Your task to perform on an android device: Set the phone to "Do not disturb". Image 0: 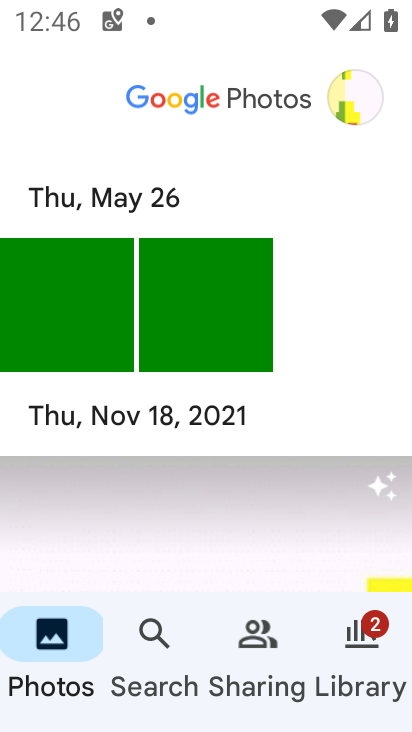
Step 0: press home button
Your task to perform on an android device: Set the phone to "Do not disturb". Image 1: 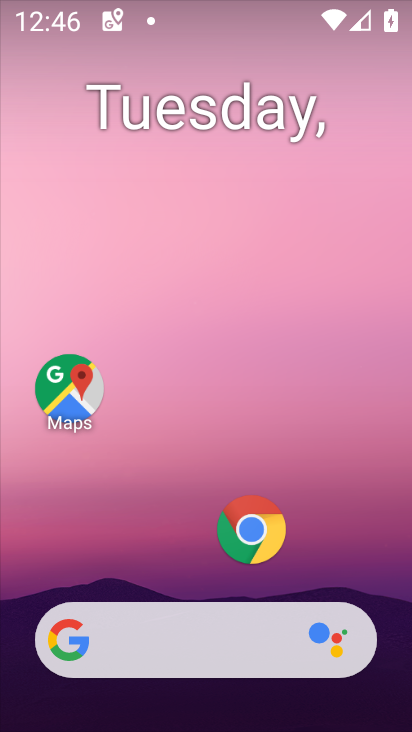
Step 1: drag from (214, 677) to (343, 202)
Your task to perform on an android device: Set the phone to "Do not disturb". Image 2: 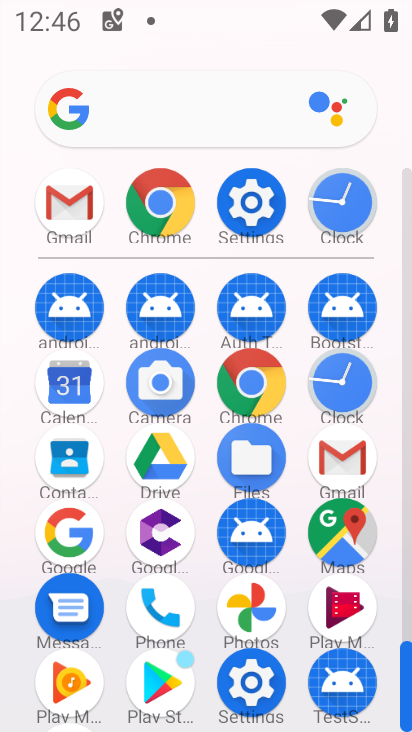
Step 2: click (243, 208)
Your task to perform on an android device: Set the phone to "Do not disturb". Image 3: 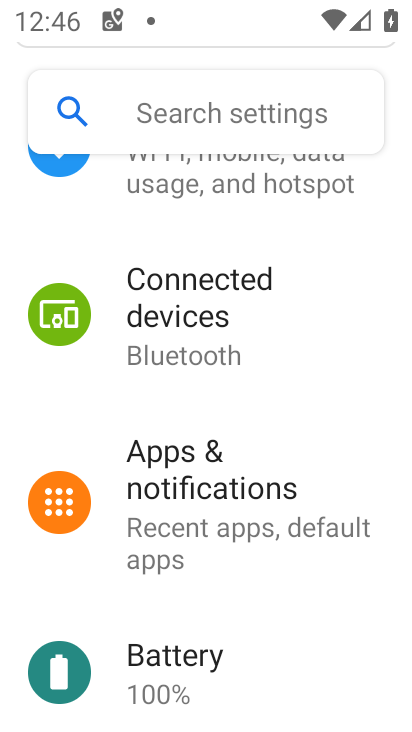
Step 3: click (176, 128)
Your task to perform on an android device: Set the phone to "Do not disturb". Image 4: 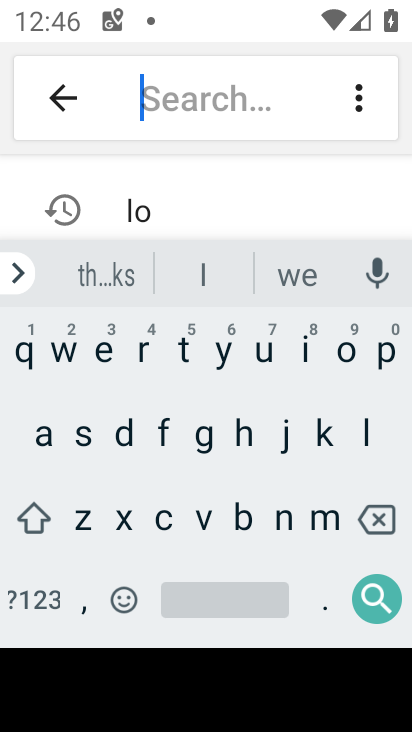
Step 4: click (131, 429)
Your task to perform on an android device: Set the phone to "Do not disturb". Image 5: 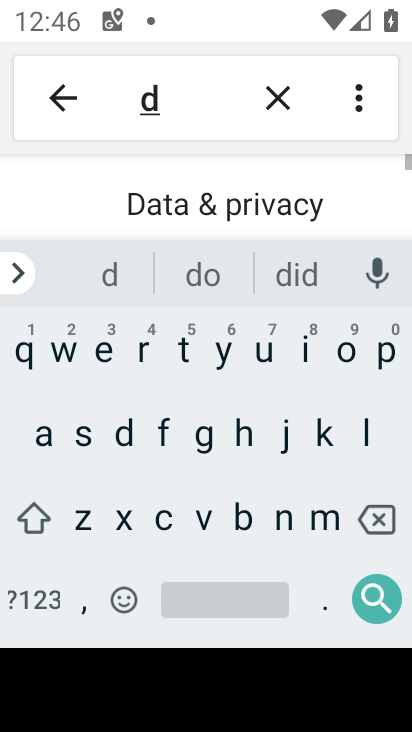
Step 5: click (286, 519)
Your task to perform on an android device: Set the phone to "Do not disturb". Image 6: 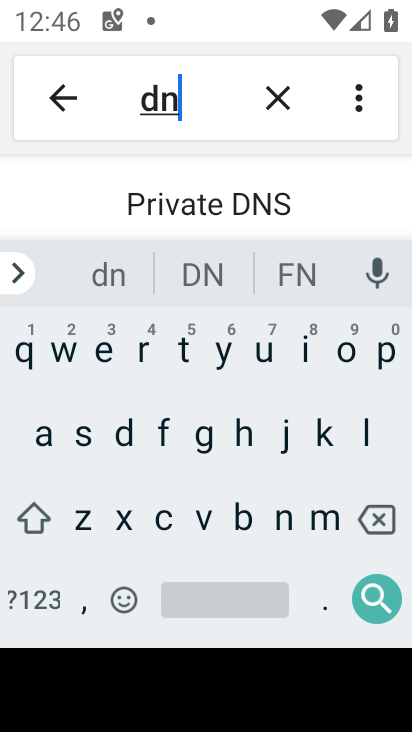
Step 6: click (120, 439)
Your task to perform on an android device: Set the phone to "Do not disturb". Image 7: 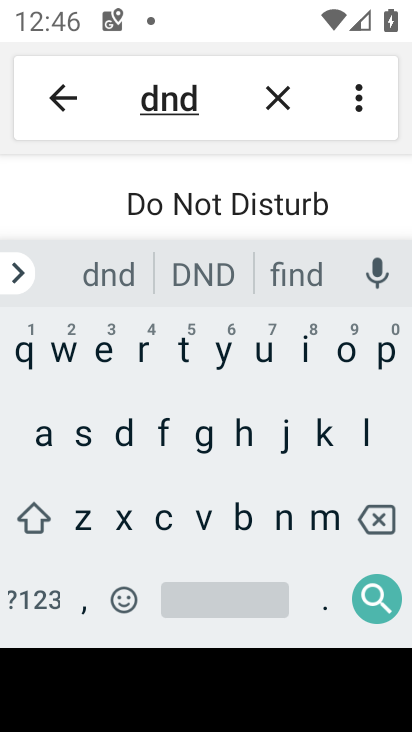
Step 7: click (195, 199)
Your task to perform on an android device: Set the phone to "Do not disturb". Image 8: 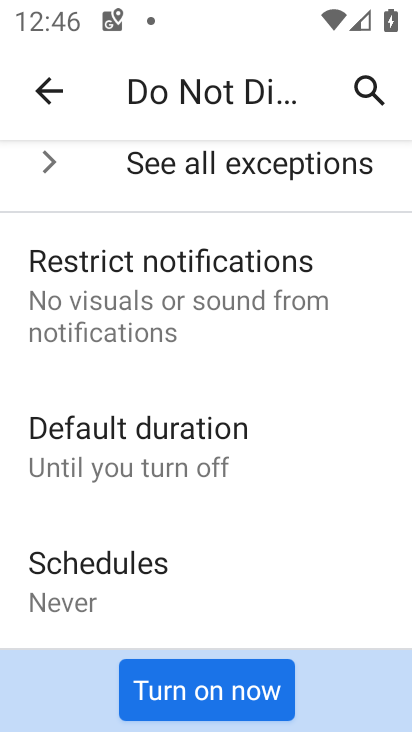
Step 8: click (165, 672)
Your task to perform on an android device: Set the phone to "Do not disturb". Image 9: 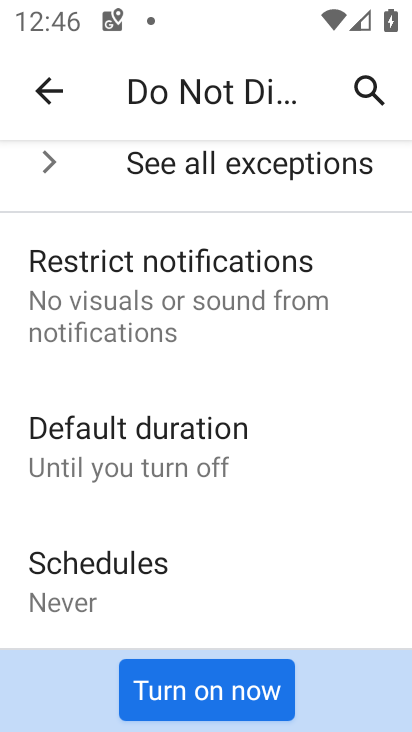
Step 9: task complete